Your task to perform on an android device: What is the news today? Image 0: 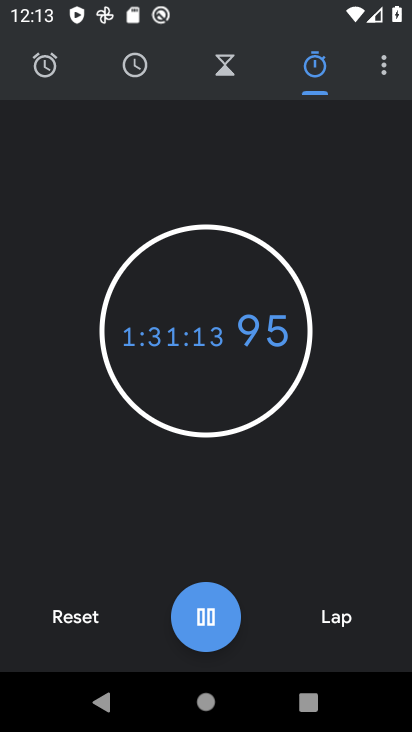
Step 0: press home button
Your task to perform on an android device: What is the news today? Image 1: 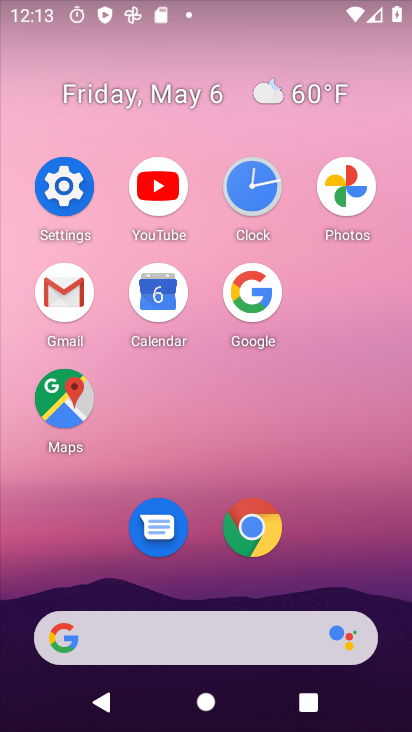
Step 1: click (256, 294)
Your task to perform on an android device: What is the news today? Image 2: 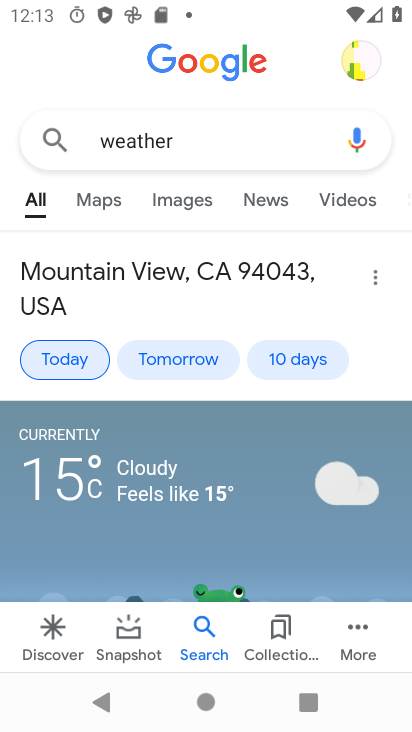
Step 2: click (219, 130)
Your task to perform on an android device: What is the news today? Image 3: 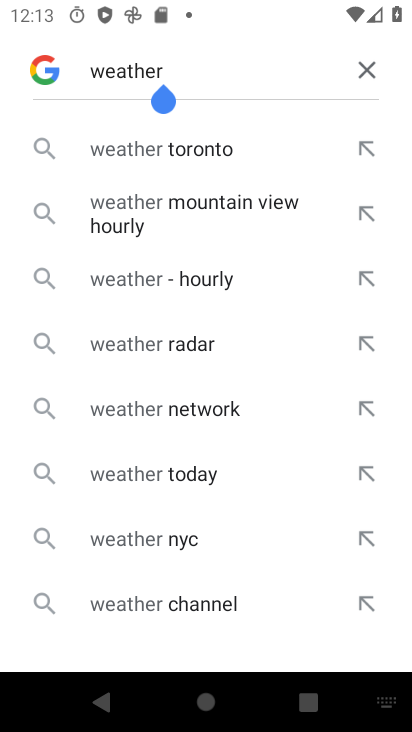
Step 3: click (359, 65)
Your task to perform on an android device: What is the news today? Image 4: 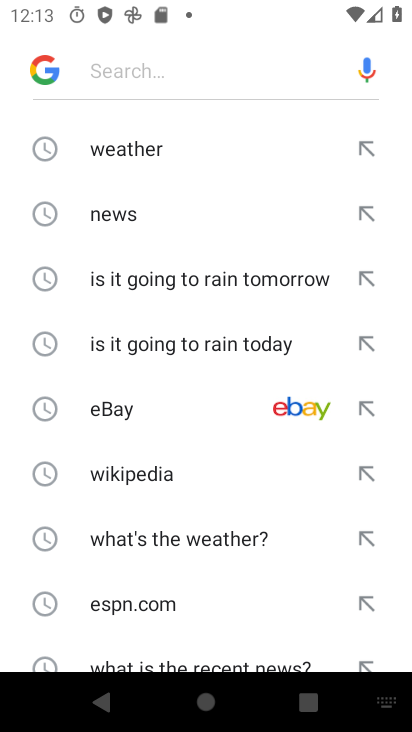
Step 4: click (150, 211)
Your task to perform on an android device: What is the news today? Image 5: 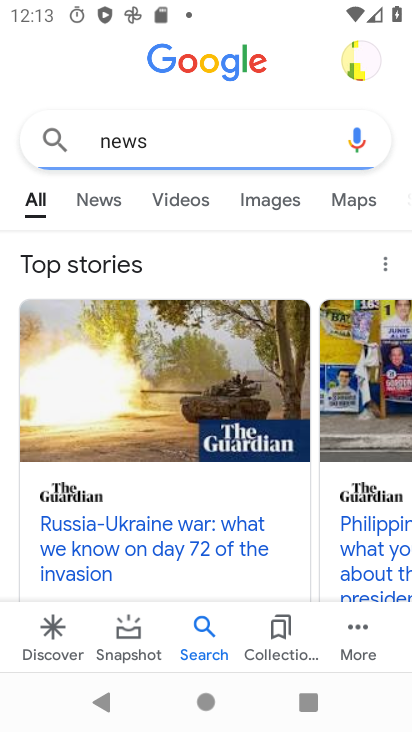
Step 5: task complete